Your task to perform on an android device: Open settings on Google Maps Image 0: 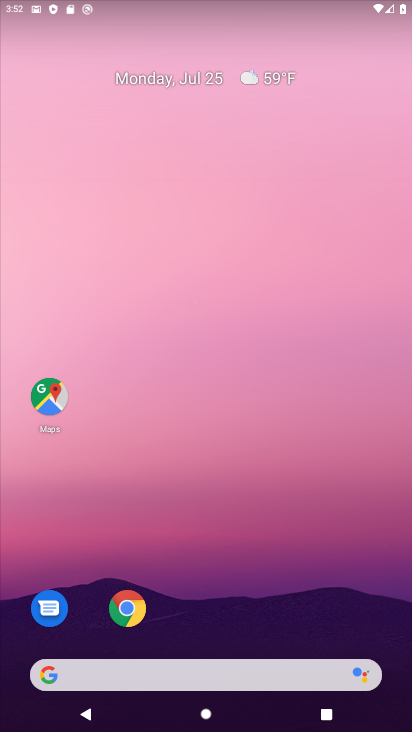
Step 0: drag from (209, 667) to (263, 50)
Your task to perform on an android device: Open settings on Google Maps Image 1: 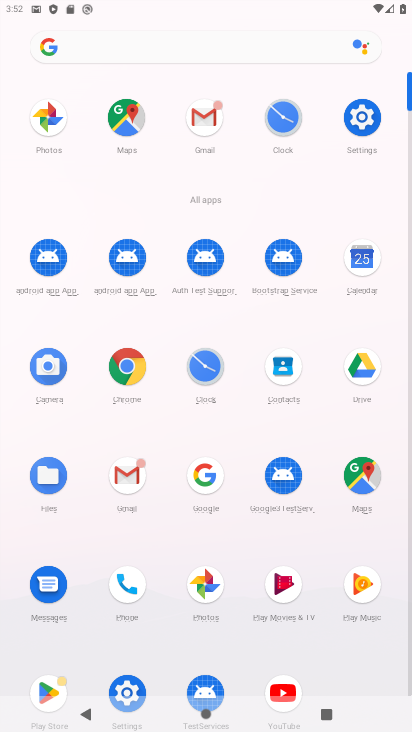
Step 1: click (139, 674)
Your task to perform on an android device: Open settings on Google Maps Image 2: 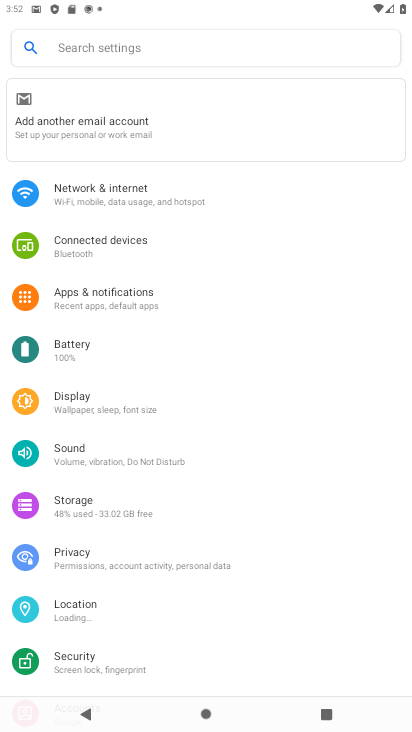
Step 2: task complete